Your task to perform on an android device: Go to Android settings Image 0: 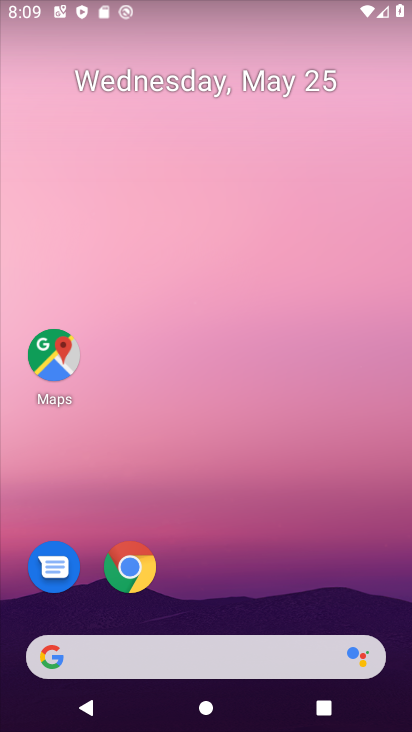
Step 0: drag from (251, 614) to (297, 19)
Your task to perform on an android device: Go to Android settings Image 1: 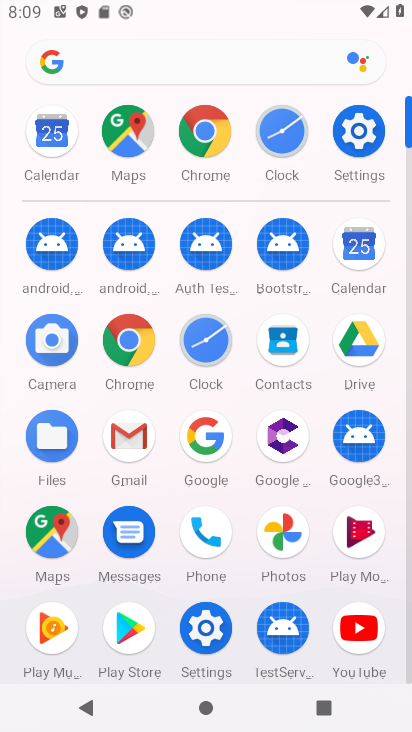
Step 1: click (367, 137)
Your task to perform on an android device: Go to Android settings Image 2: 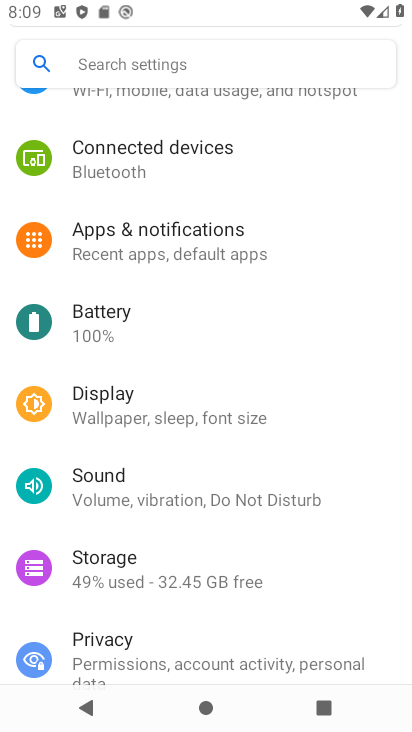
Step 2: click (367, 137)
Your task to perform on an android device: Go to Android settings Image 3: 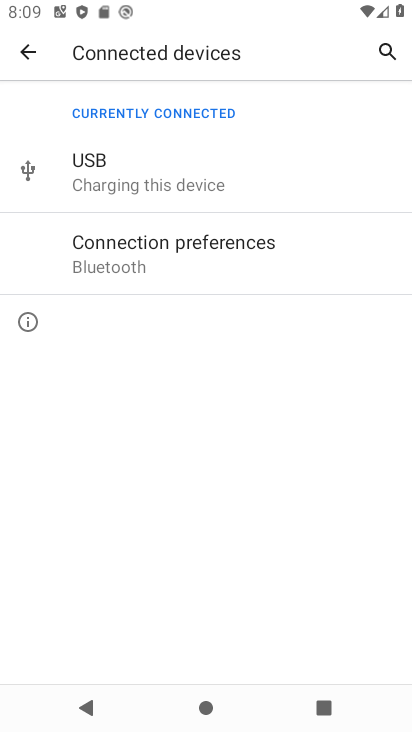
Step 3: click (28, 66)
Your task to perform on an android device: Go to Android settings Image 4: 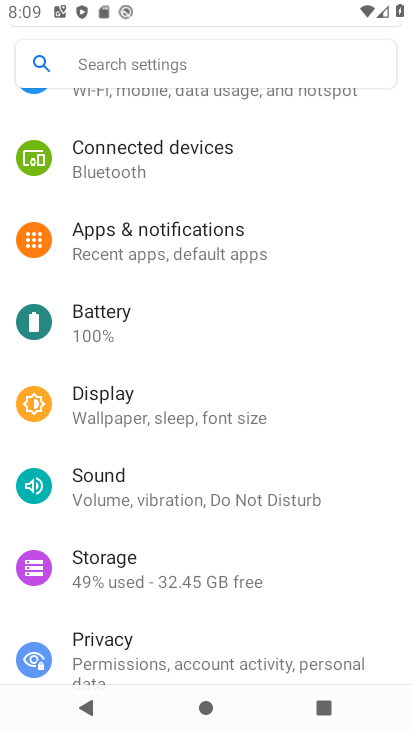
Step 4: drag from (151, 566) to (188, 265)
Your task to perform on an android device: Go to Android settings Image 5: 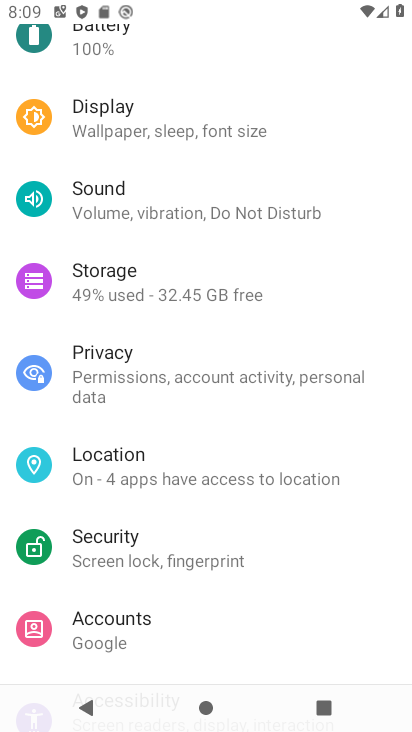
Step 5: drag from (233, 597) to (280, 129)
Your task to perform on an android device: Go to Android settings Image 6: 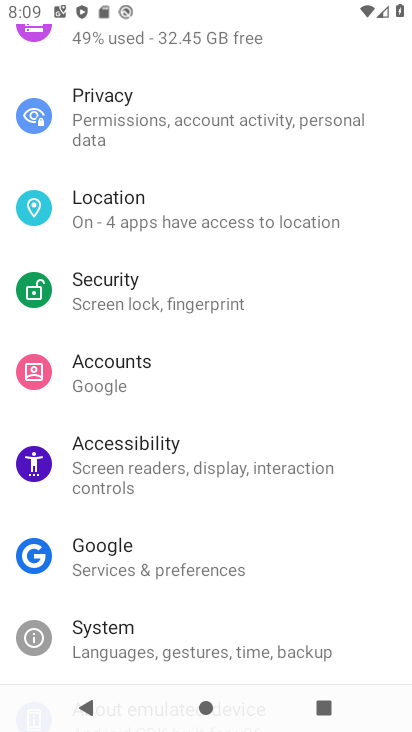
Step 6: click (170, 634)
Your task to perform on an android device: Go to Android settings Image 7: 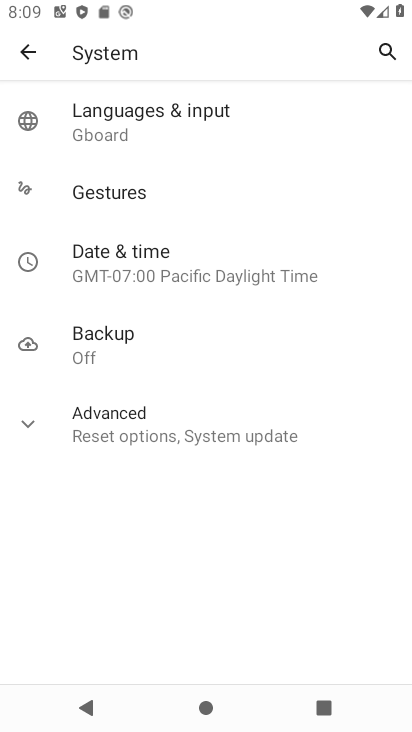
Step 7: task complete